Your task to perform on an android device: Go to Yahoo.com Image 0: 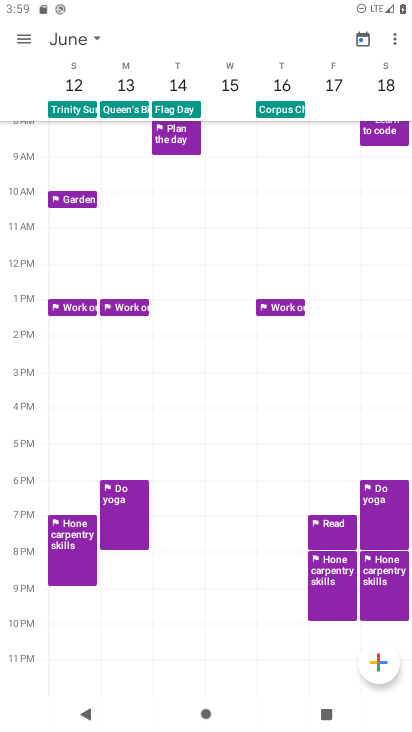
Step 0: press home button
Your task to perform on an android device: Go to Yahoo.com Image 1: 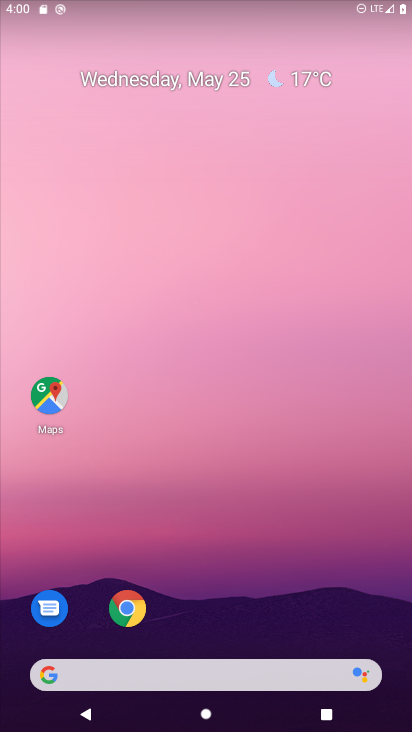
Step 1: click (131, 610)
Your task to perform on an android device: Go to Yahoo.com Image 2: 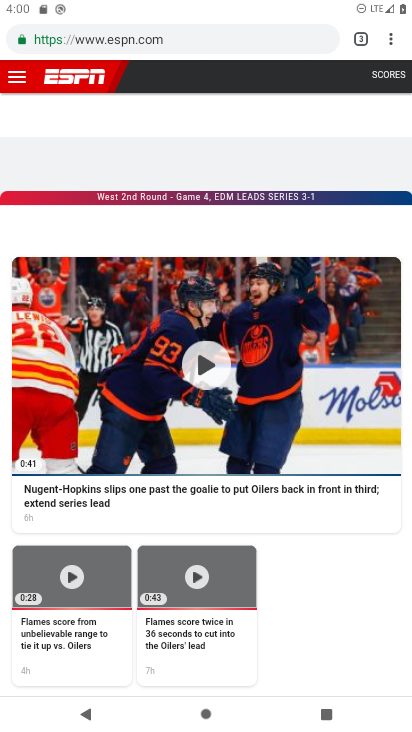
Step 2: click (202, 34)
Your task to perform on an android device: Go to Yahoo.com Image 3: 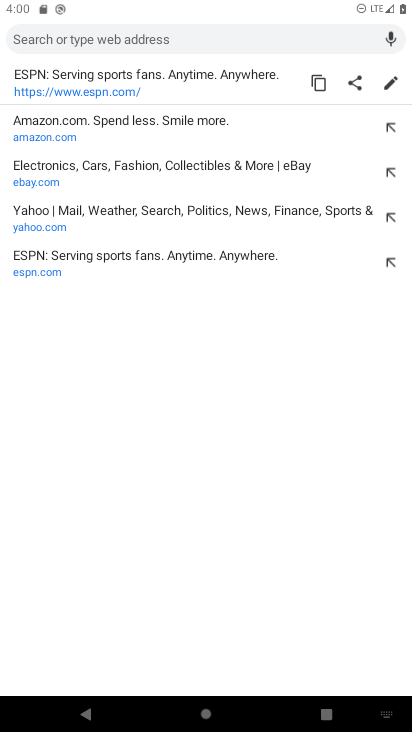
Step 3: type "yahoo.com"
Your task to perform on an android device: Go to Yahoo.com Image 4: 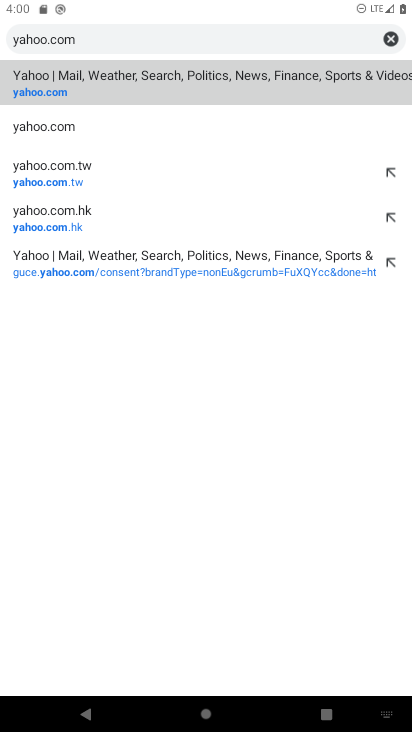
Step 4: click (77, 87)
Your task to perform on an android device: Go to Yahoo.com Image 5: 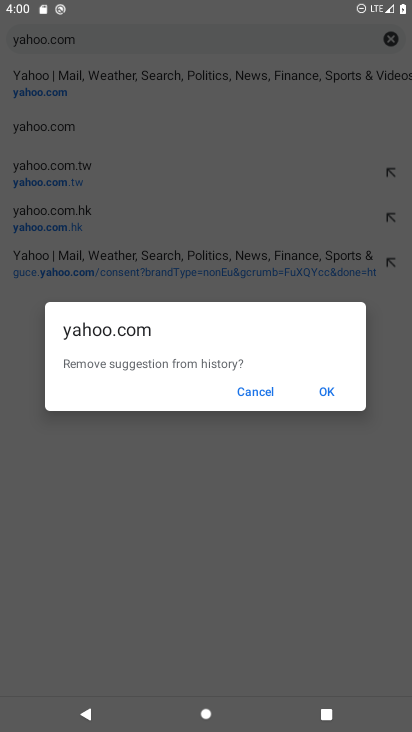
Step 5: click (326, 392)
Your task to perform on an android device: Go to Yahoo.com Image 6: 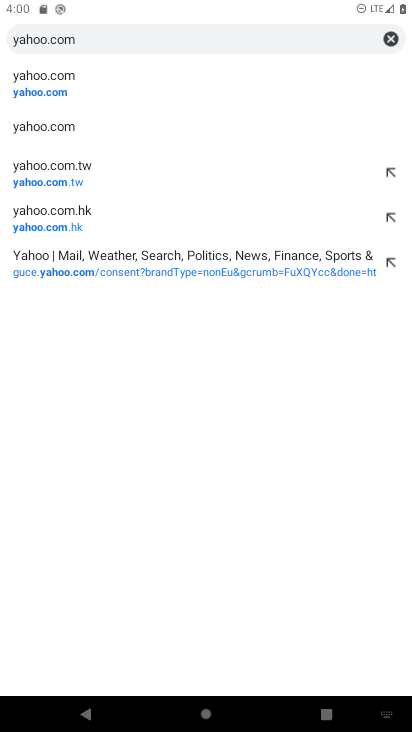
Step 6: click (66, 87)
Your task to perform on an android device: Go to Yahoo.com Image 7: 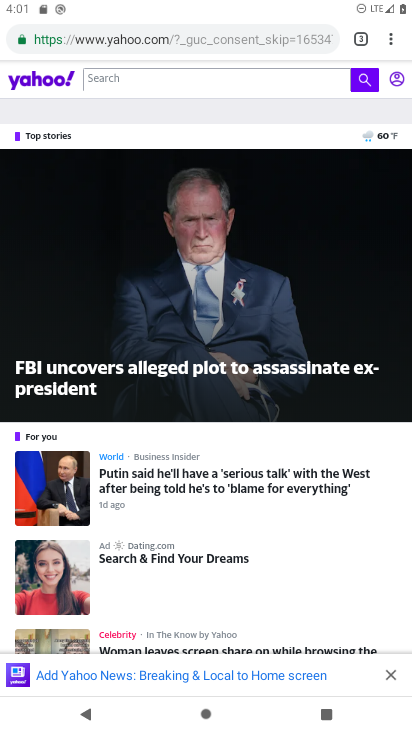
Step 7: task complete